Your task to perform on an android device: Go to CNN.com Image 0: 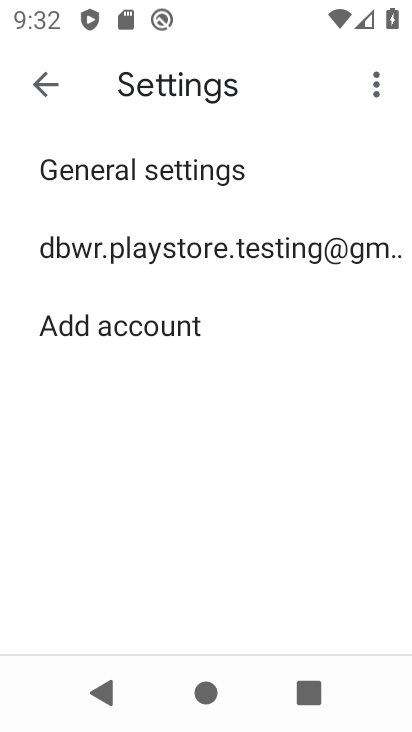
Step 0: press home button
Your task to perform on an android device: Go to CNN.com Image 1: 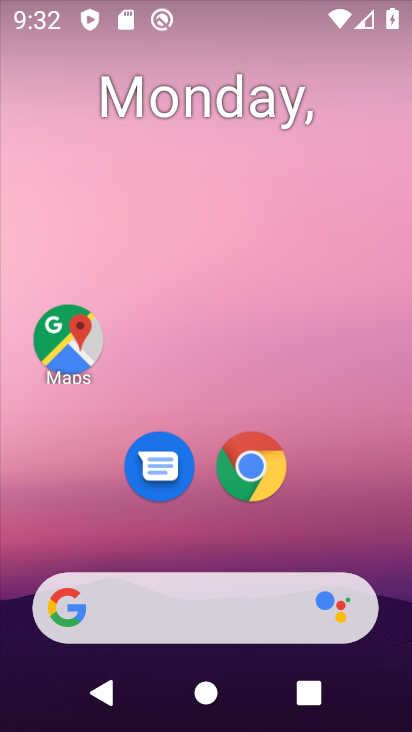
Step 1: click (261, 471)
Your task to perform on an android device: Go to CNN.com Image 2: 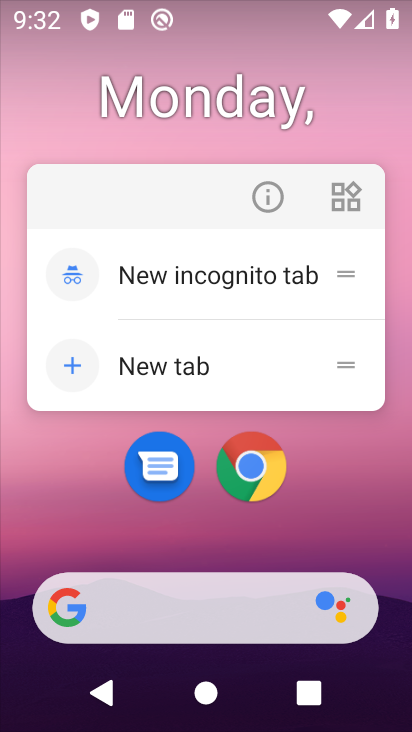
Step 2: click (261, 471)
Your task to perform on an android device: Go to CNN.com Image 3: 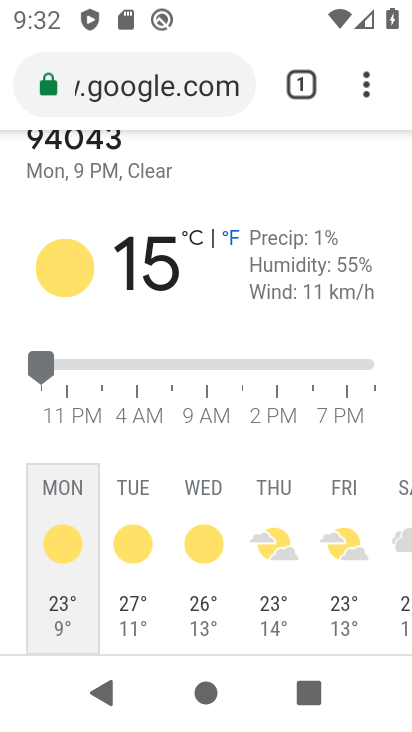
Step 3: click (167, 94)
Your task to perform on an android device: Go to CNN.com Image 4: 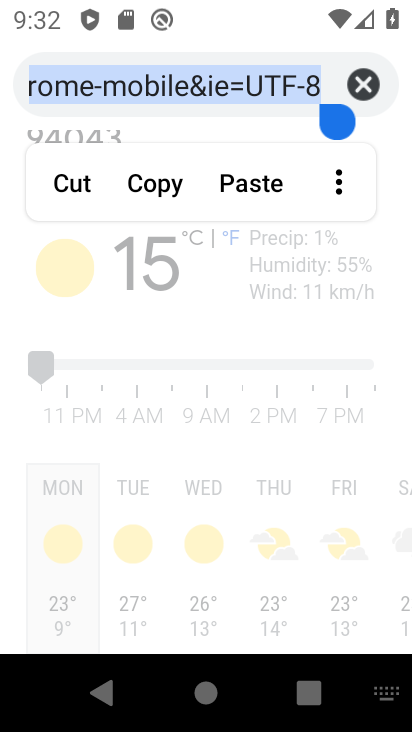
Step 4: click (360, 90)
Your task to perform on an android device: Go to CNN.com Image 5: 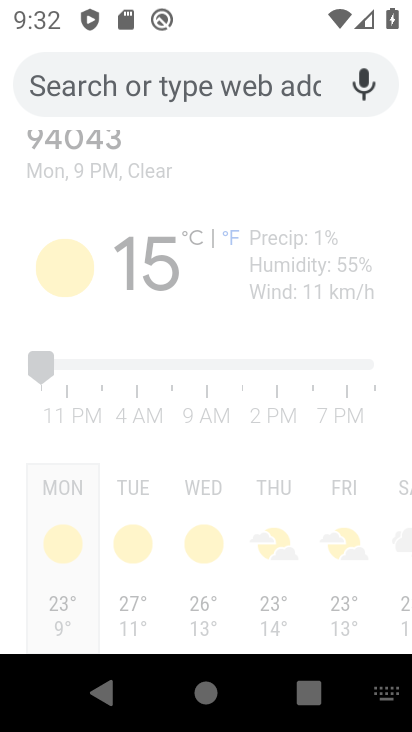
Step 5: type "CNN.com"
Your task to perform on an android device: Go to CNN.com Image 6: 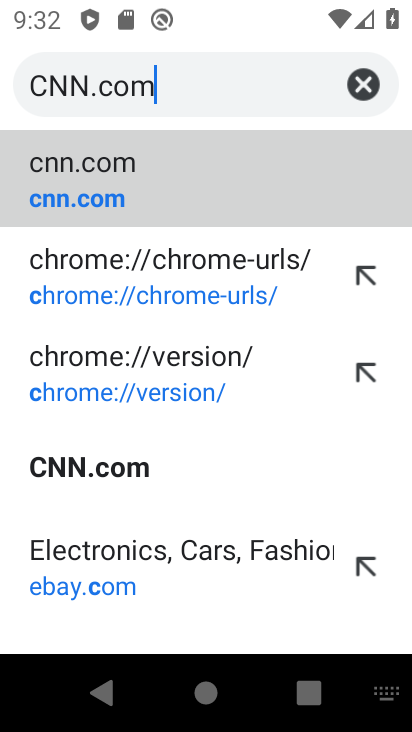
Step 6: type ""
Your task to perform on an android device: Go to CNN.com Image 7: 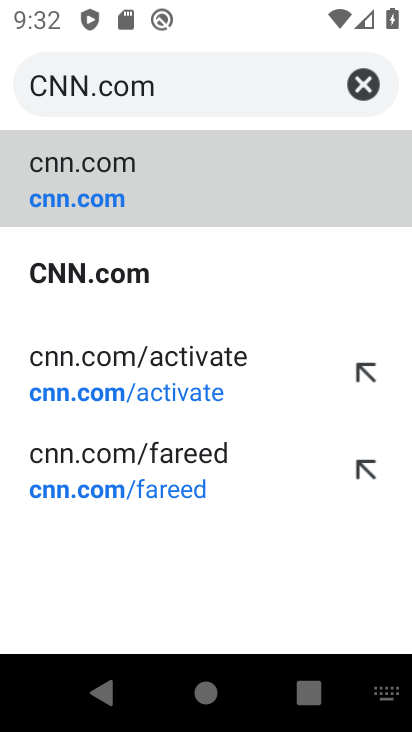
Step 7: click (241, 187)
Your task to perform on an android device: Go to CNN.com Image 8: 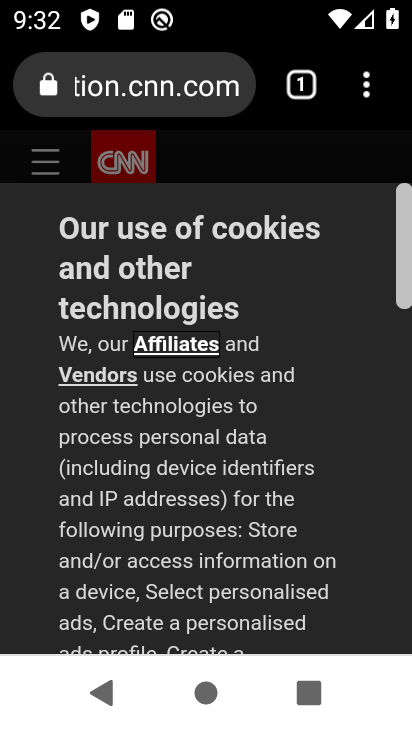
Step 8: task complete